Your task to perform on an android device: Go to wifi settings Image 0: 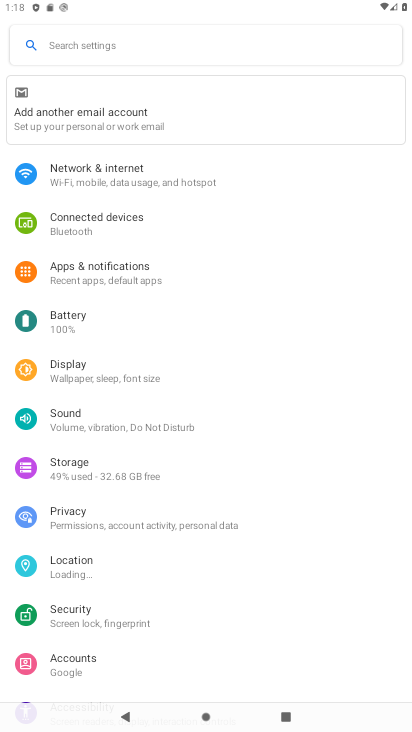
Step 0: click (303, 177)
Your task to perform on an android device: Go to wifi settings Image 1: 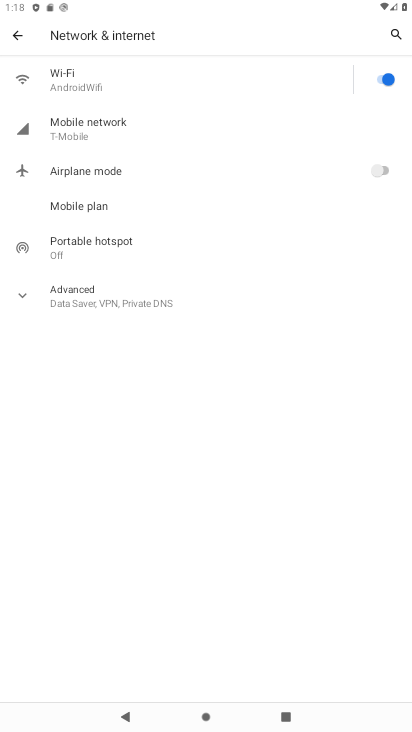
Step 1: click (222, 79)
Your task to perform on an android device: Go to wifi settings Image 2: 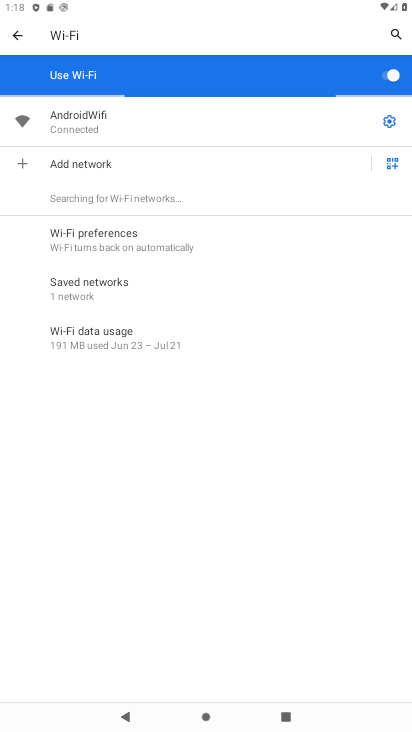
Step 2: task complete